Your task to perform on an android device: Show me the alarms in the clock app Image 0: 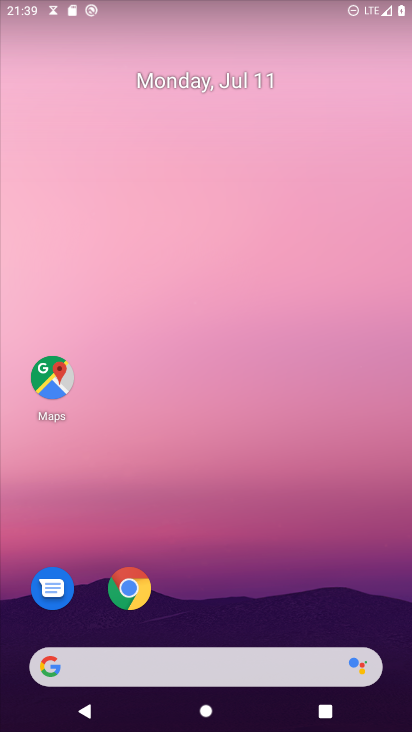
Step 0: press home button
Your task to perform on an android device: Show me the alarms in the clock app Image 1: 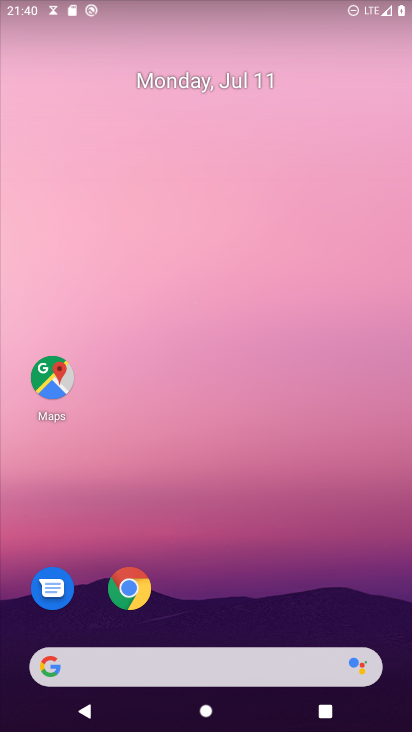
Step 1: drag from (230, 629) to (275, 45)
Your task to perform on an android device: Show me the alarms in the clock app Image 2: 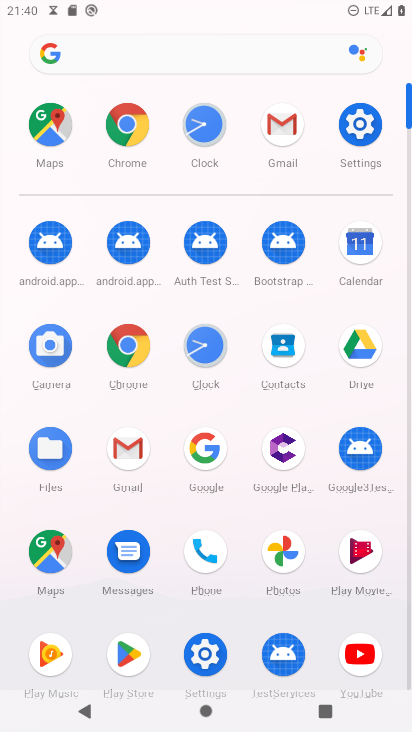
Step 2: click (201, 136)
Your task to perform on an android device: Show me the alarms in the clock app Image 3: 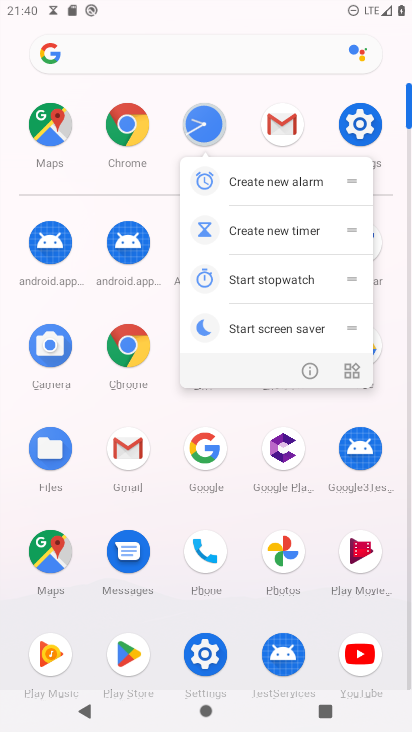
Step 3: click (201, 136)
Your task to perform on an android device: Show me the alarms in the clock app Image 4: 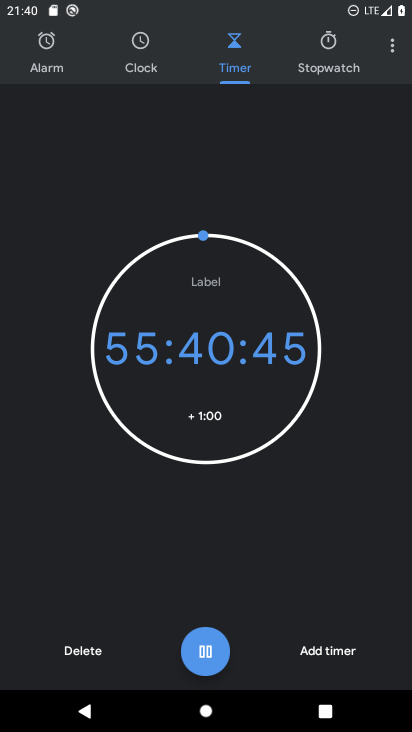
Step 4: click (55, 45)
Your task to perform on an android device: Show me the alarms in the clock app Image 5: 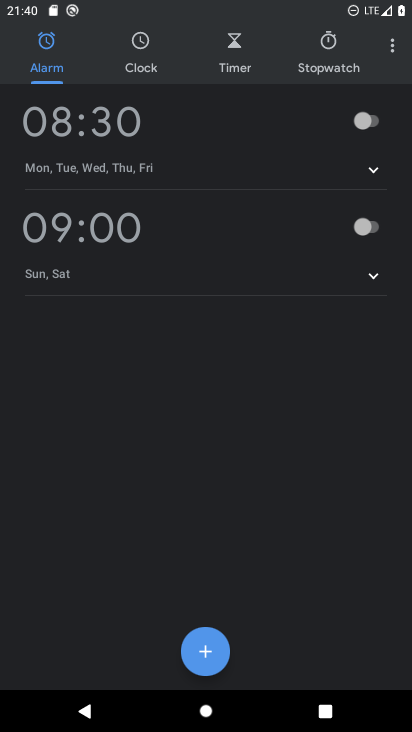
Step 5: task complete